Your task to perform on an android device: Open Wikipedia Image 0: 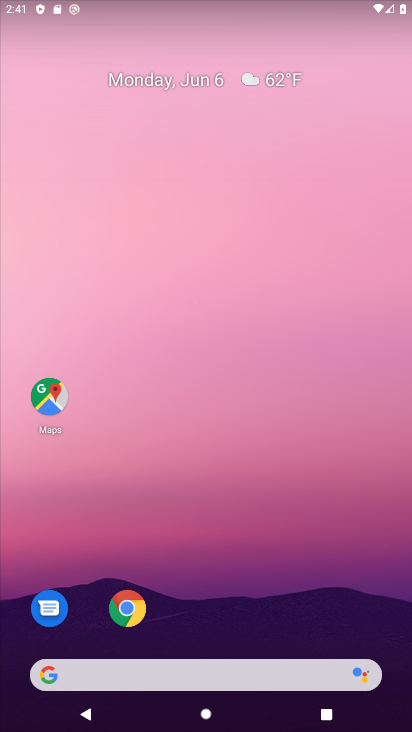
Step 0: click (123, 608)
Your task to perform on an android device: Open Wikipedia Image 1: 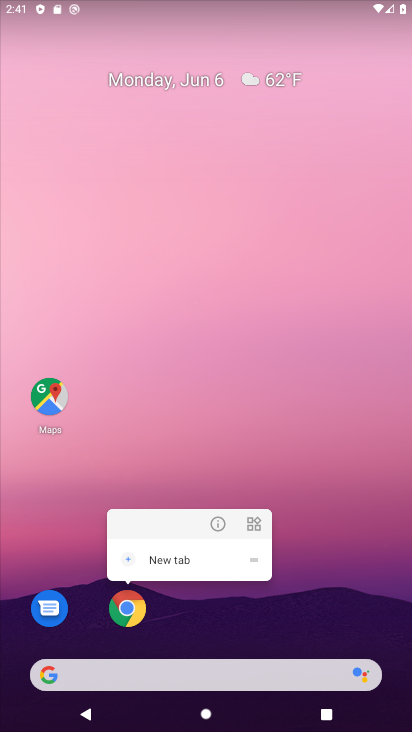
Step 1: click (123, 608)
Your task to perform on an android device: Open Wikipedia Image 2: 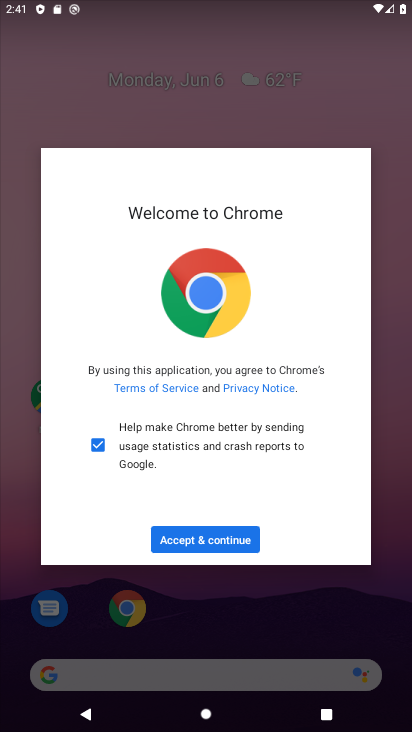
Step 2: click (195, 538)
Your task to perform on an android device: Open Wikipedia Image 3: 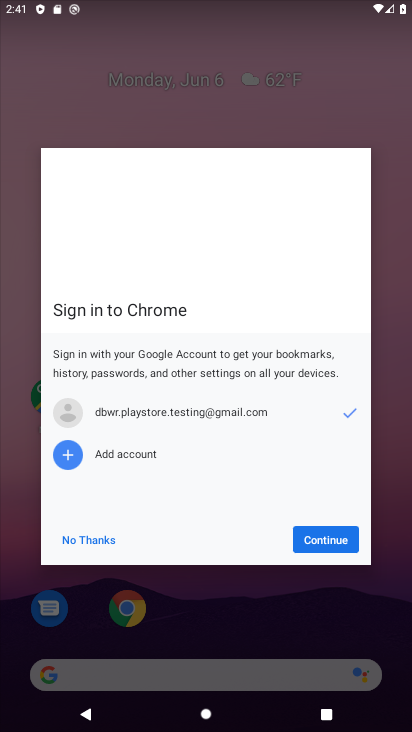
Step 3: click (331, 544)
Your task to perform on an android device: Open Wikipedia Image 4: 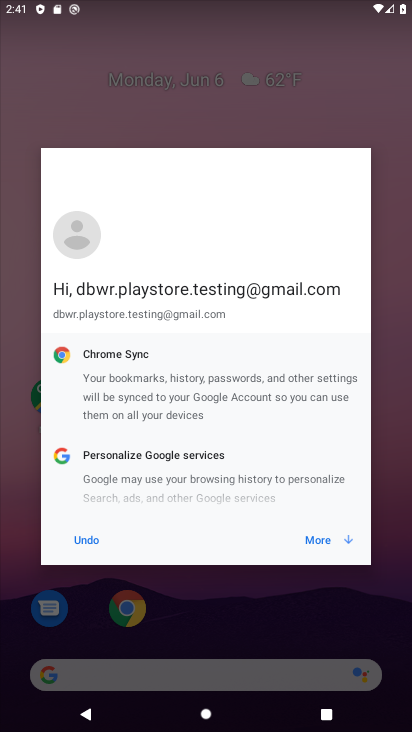
Step 4: click (331, 544)
Your task to perform on an android device: Open Wikipedia Image 5: 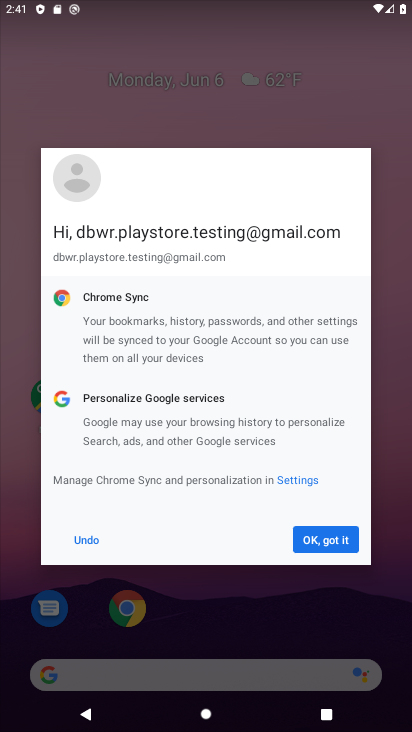
Step 5: click (331, 544)
Your task to perform on an android device: Open Wikipedia Image 6: 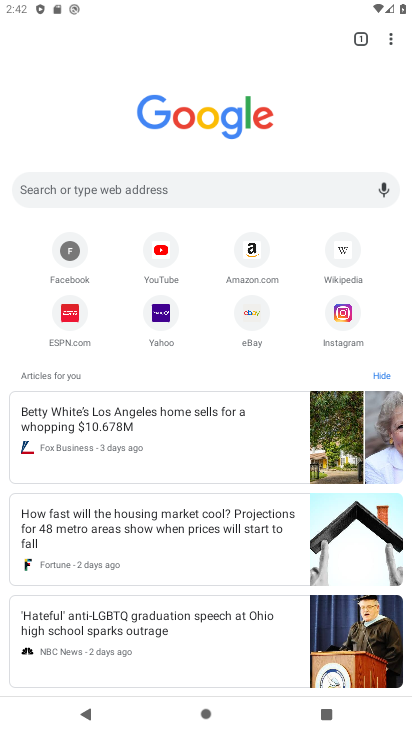
Step 6: click (347, 244)
Your task to perform on an android device: Open Wikipedia Image 7: 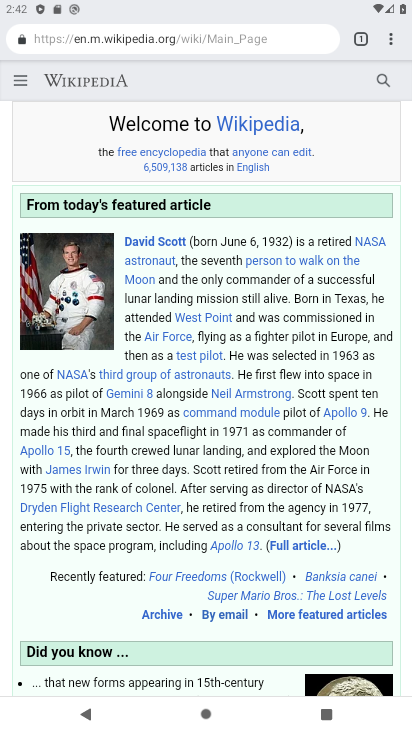
Step 7: task complete